Your task to perform on an android device: Open the stopwatch Image 0: 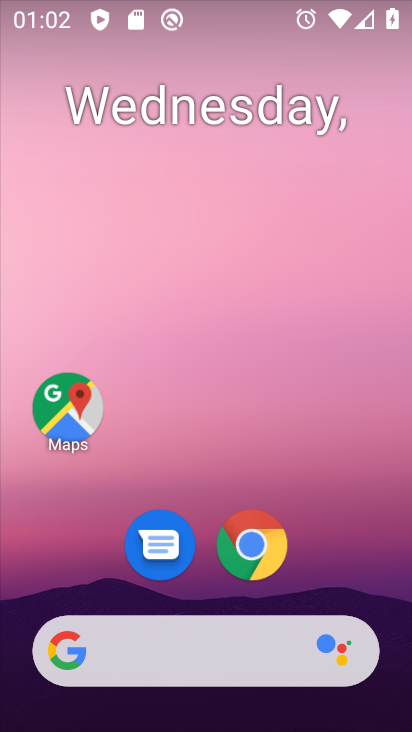
Step 0: drag from (356, 416) to (402, 212)
Your task to perform on an android device: Open the stopwatch Image 1: 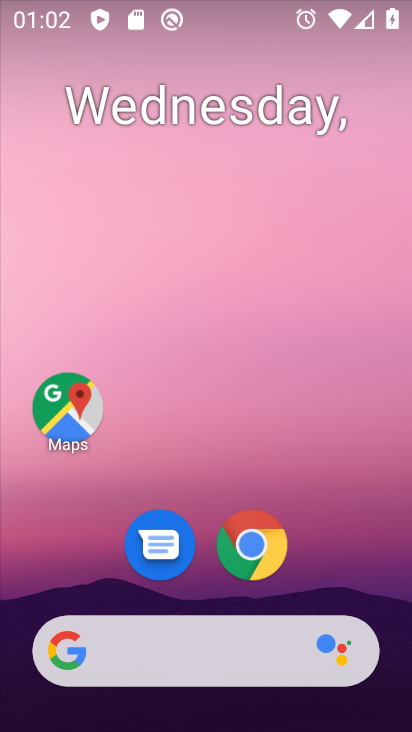
Step 1: drag from (346, 583) to (409, 169)
Your task to perform on an android device: Open the stopwatch Image 2: 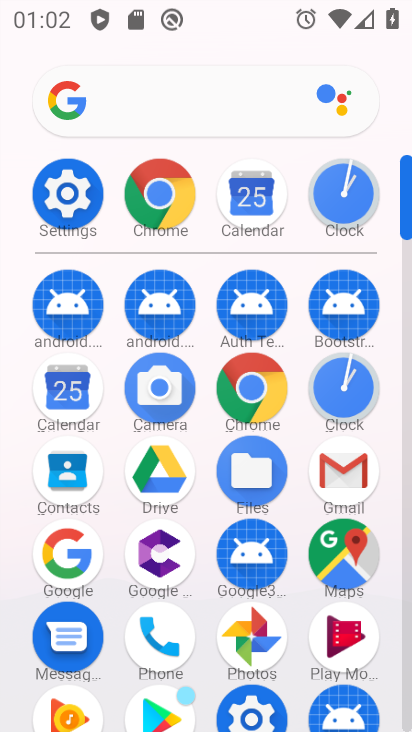
Step 2: click (338, 373)
Your task to perform on an android device: Open the stopwatch Image 3: 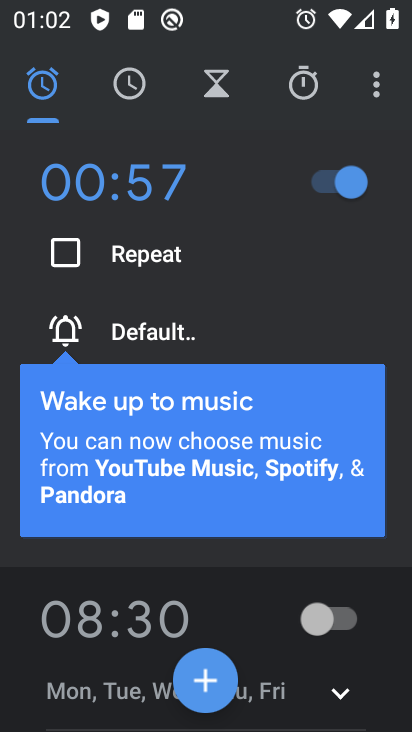
Step 3: click (313, 91)
Your task to perform on an android device: Open the stopwatch Image 4: 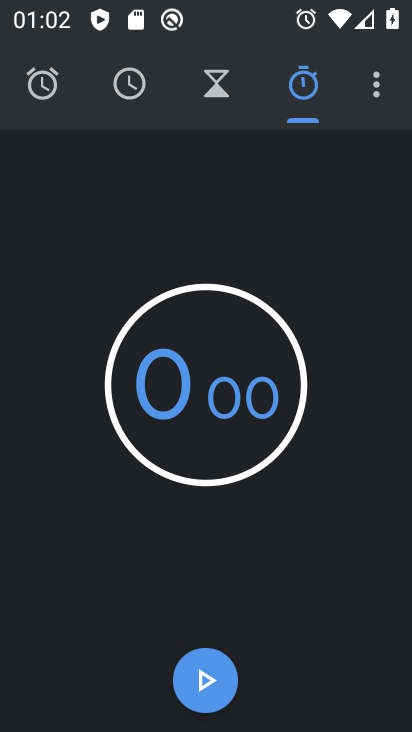
Step 4: task complete